Your task to perform on an android device: Go to location settings Image 0: 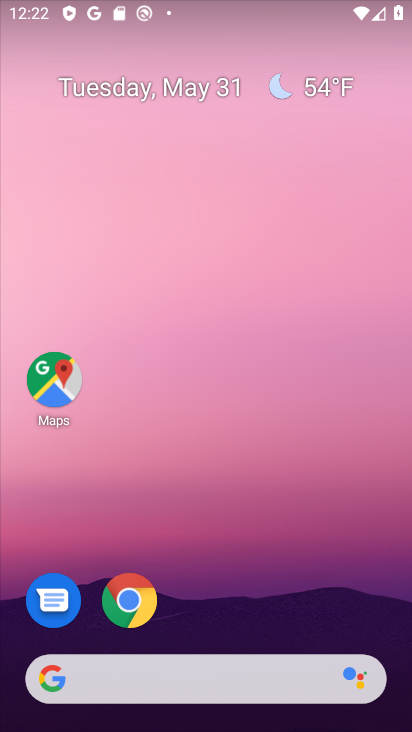
Step 0: drag from (211, 648) to (317, 5)
Your task to perform on an android device: Go to location settings Image 1: 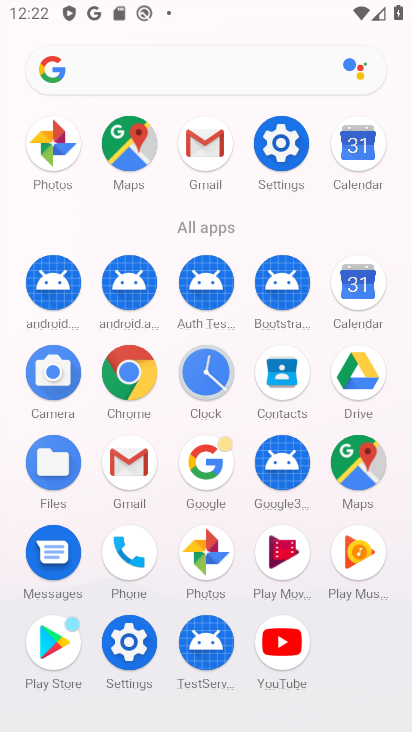
Step 1: click (276, 147)
Your task to perform on an android device: Go to location settings Image 2: 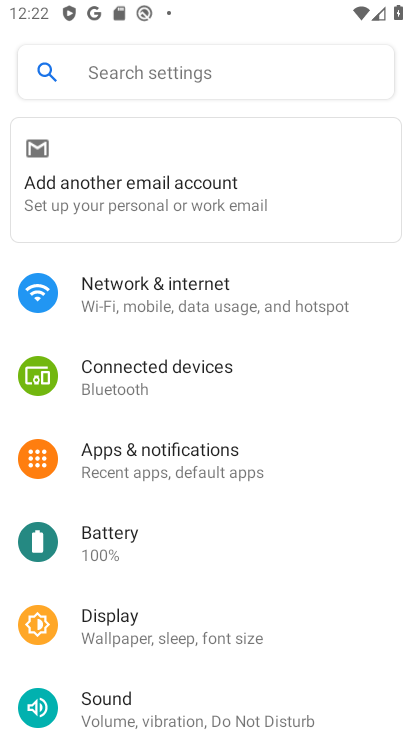
Step 2: drag from (156, 649) to (103, 221)
Your task to perform on an android device: Go to location settings Image 3: 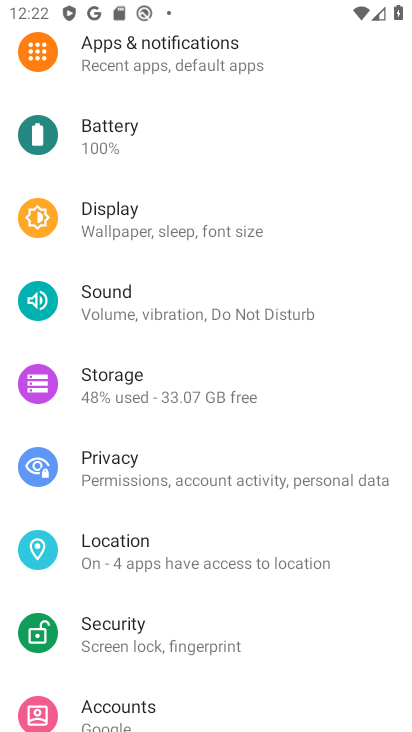
Step 3: click (146, 566)
Your task to perform on an android device: Go to location settings Image 4: 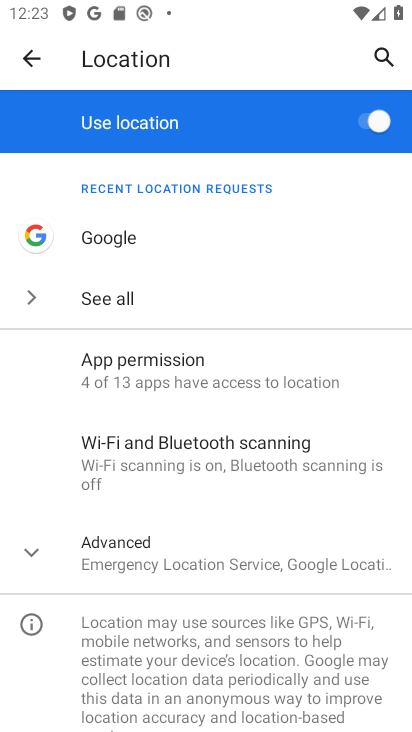
Step 4: task complete